Your task to perform on an android device: Open settings Image 0: 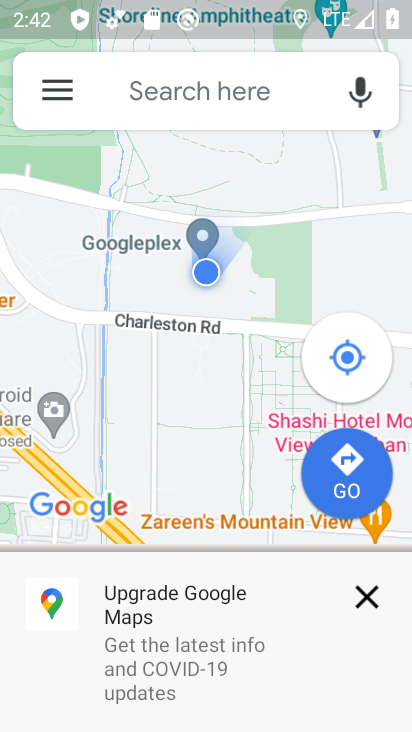
Step 0: press home button
Your task to perform on an android device: Open settings Image 1: 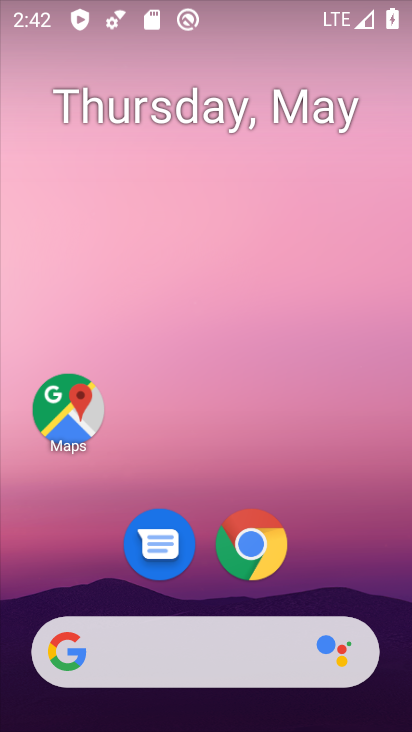
Step 1: drag from (277, 659) to (330, 151)
Your task to perform on an android device: Open settings Image 2: 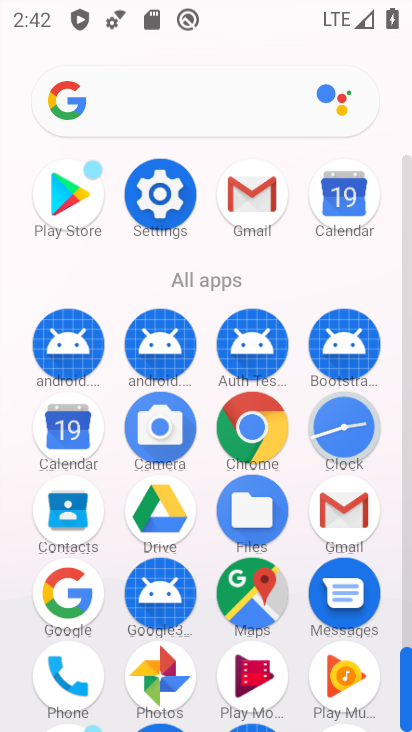
Step 2: click (169, 193)
Your task to perform on an android device: Open settings Image 3: 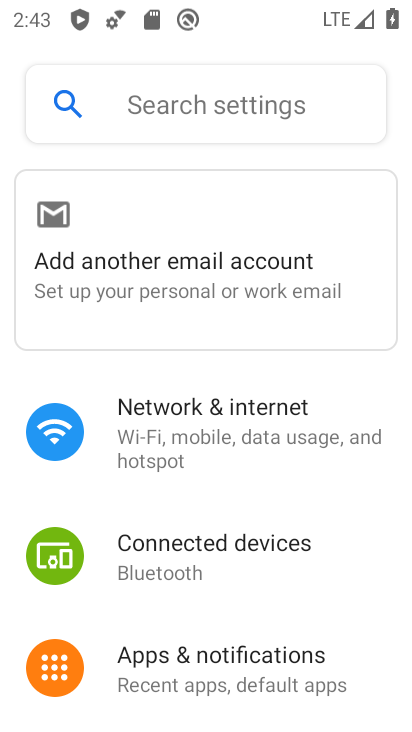
Step 3: task complete